Your task to perform on an android device: Open battery settings Image 0: 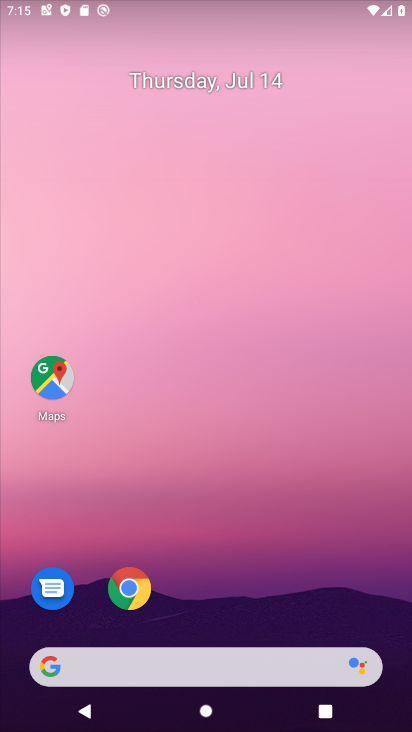
Step 0: drag from (376, 645) to (212, 32)
Your task to perform on an android device: Open battery settings Image 1: 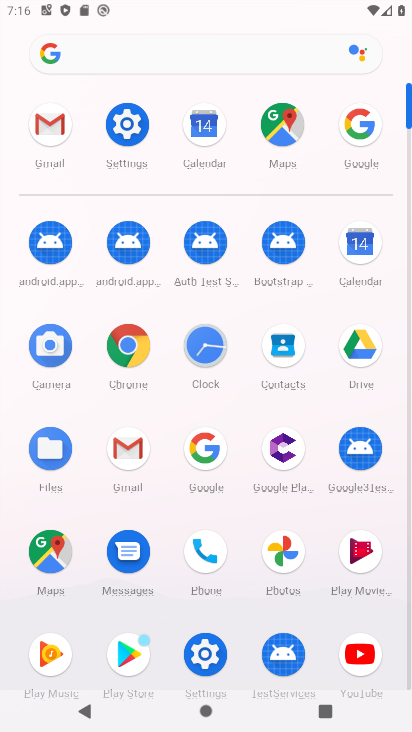
Step 1: click (180, 642)
Your task to perform on an android device: Open battery settings Image 2: 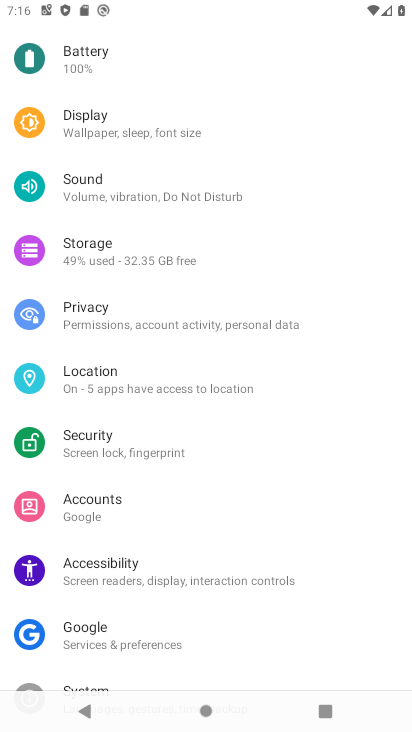
Step 2: click (101, 59)
Your task to perform on an android device: Open battery settings Image 3: 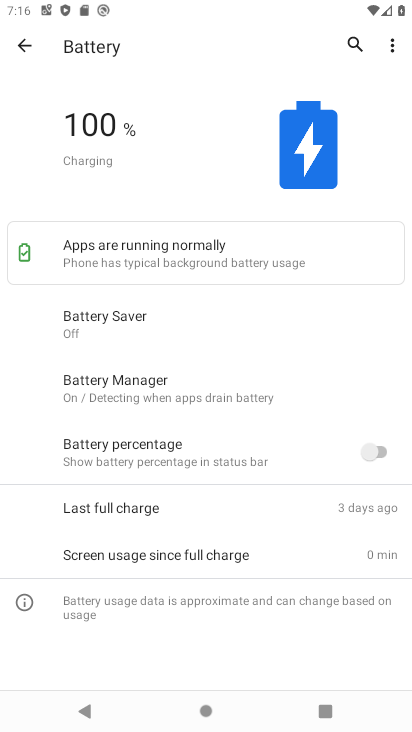
Step 3: task complete